Your task to perform on an android device: delete location history Image 0: 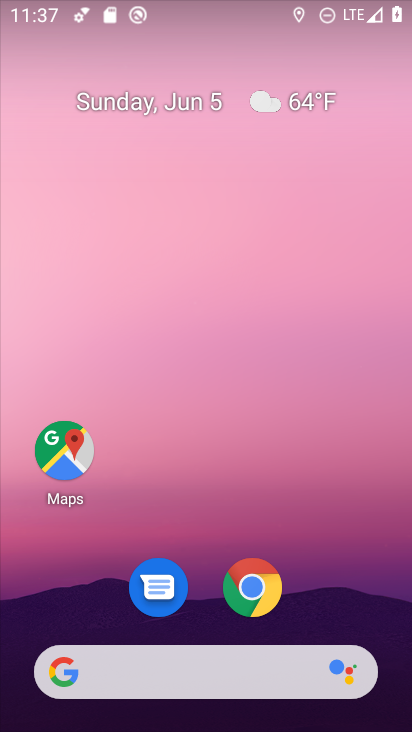
Step 0: click (59, 426)
Your task to perform on an android device: delete location history Image 1: 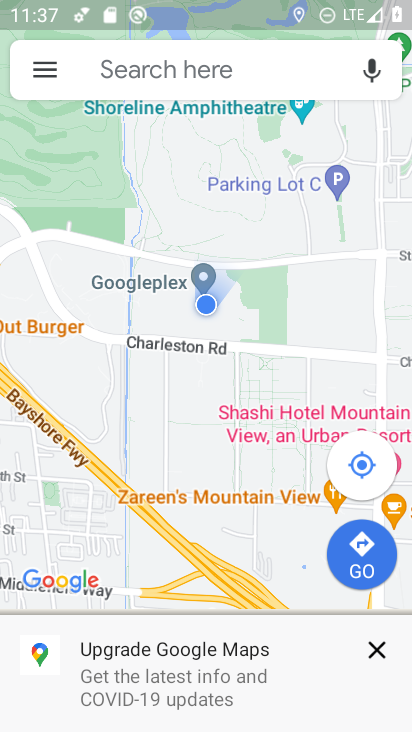
Step 1: click (25, 73)
Your task to perform on an android device: delete location history Image 2: 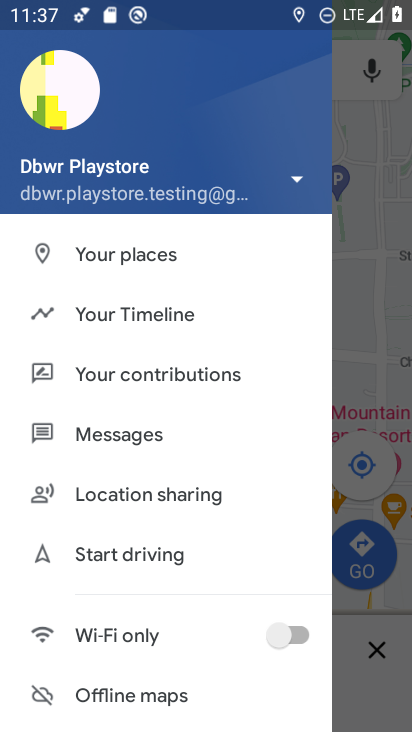
Step 2: click (108, 328)
Your task to perform on an android device: delete location history Image 3: 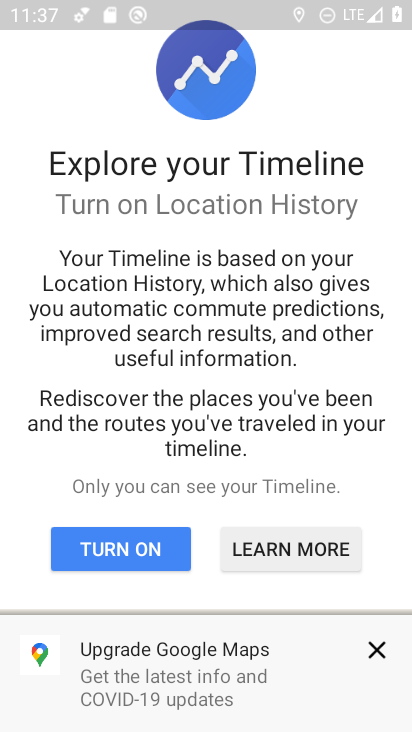
Step 3: click (115, 545)
Your task to perform on an android device: delete location history Image 4: 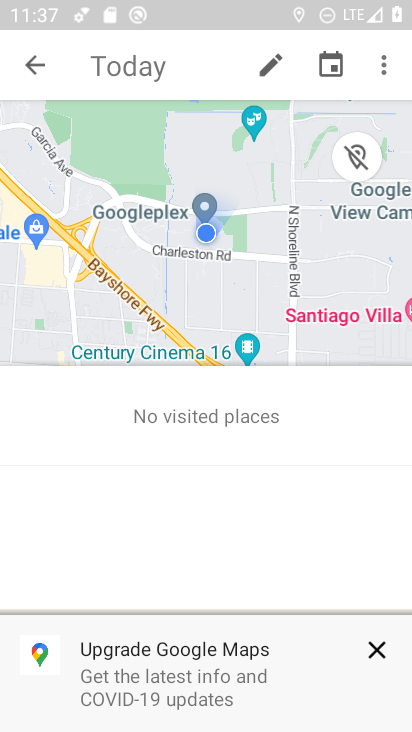
Step 4: click (382, 70)
Your task to perform on an android device: delete location history Image 5: 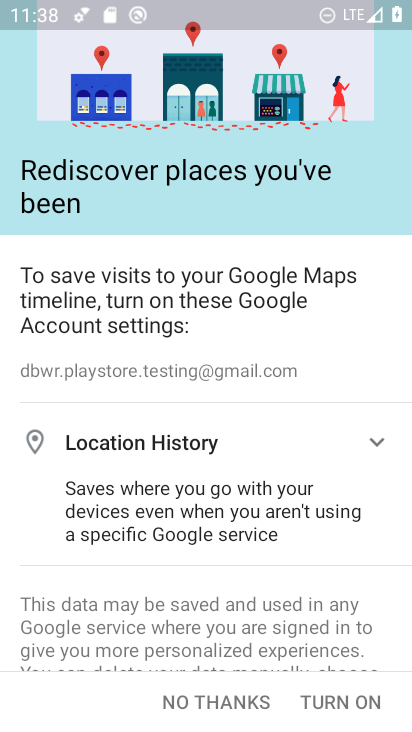
Step 5: click (348, 706)
Your task to perform on an android device: delete location history Image 6: 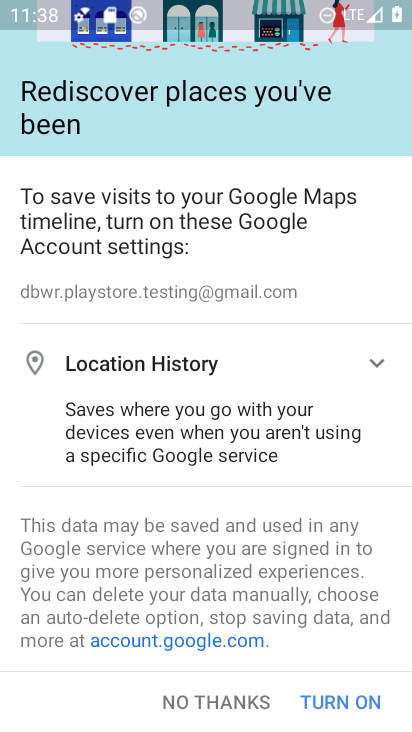
Step 6: click (348, 706)
Your task to perform on an android device: delete location history Image 7: 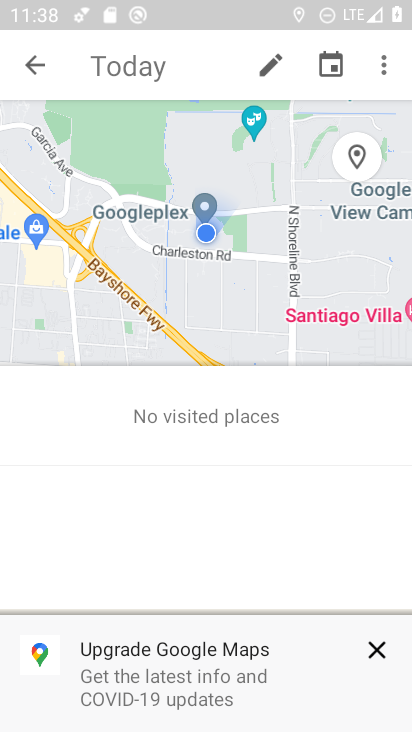
Step 7: click (384, 73)
Your task to perform on an android device: delete location history Image 8: 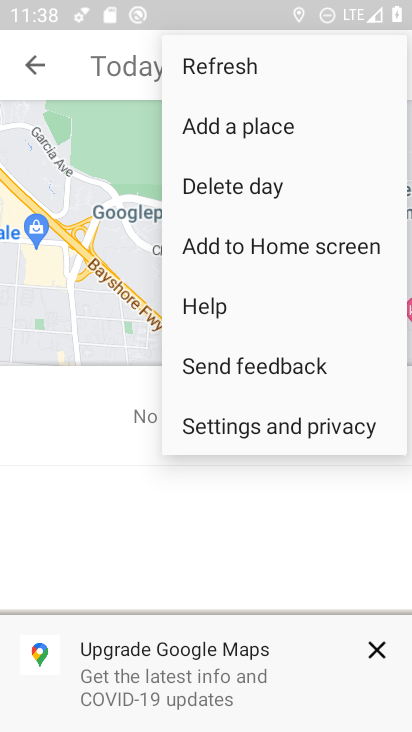
Step 8: click (242, 427)
Your task to perform on an android device: delete location history Image 9: 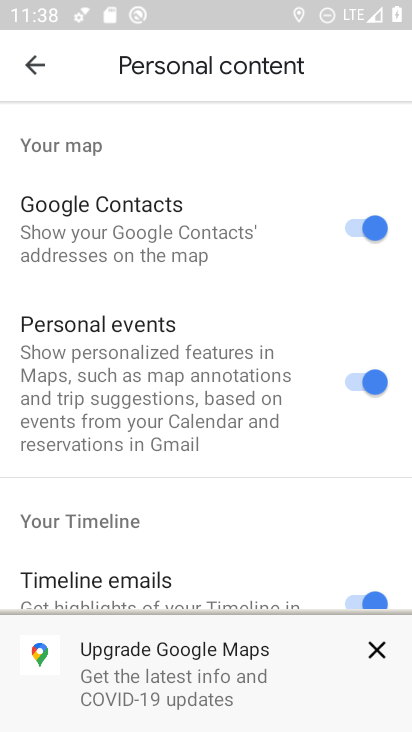
Step 9: drag from (166, 559) to (215, 102)
Your task to perform on an android device: delete location history Image 10: 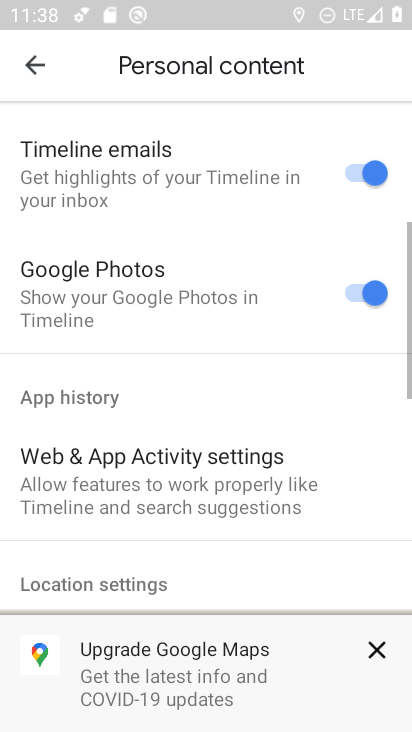
Step 10: drag from (136, 504) to (190, 65)
Your task to perform on an android device: delete location history Image 11: 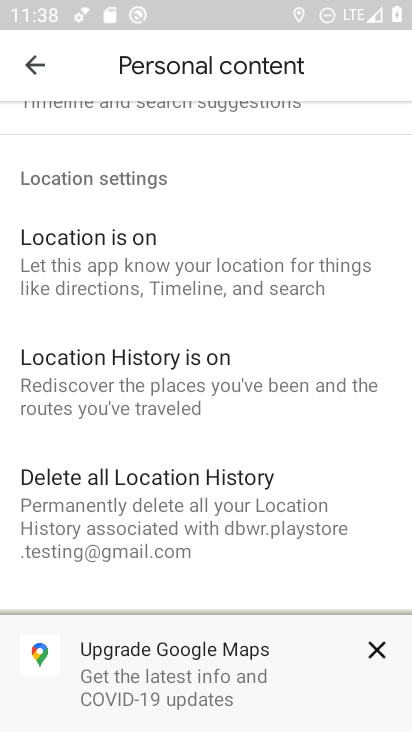
Step 11: click (193, 527)
Your task to perform on an android device: delete location history Image 12: 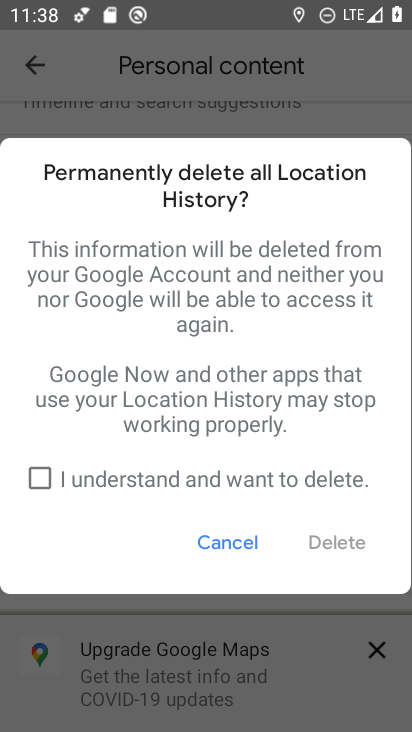
Step 12: click (36, 480)
Your task to perform on an android device: delete location history Image 13: 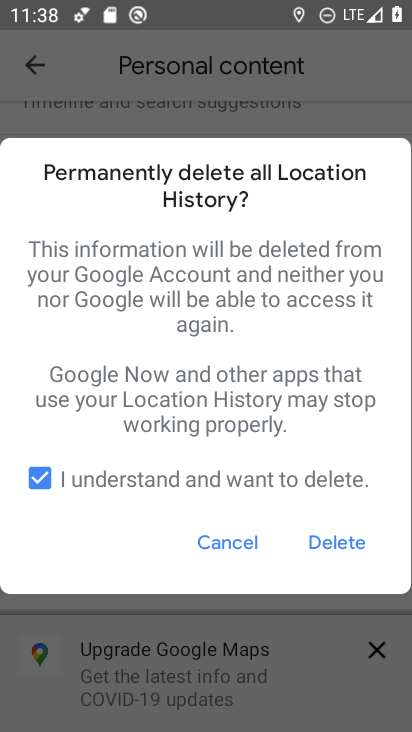
Step 13: click (358, 552)
Your task to perform on an android device: delete location history Image 14: 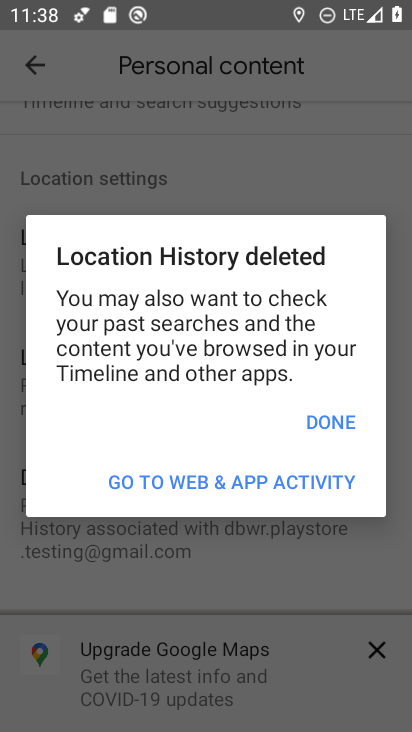
Step 14: click (321, 425)
Your task to perform on an android device: delete location history Image 15: 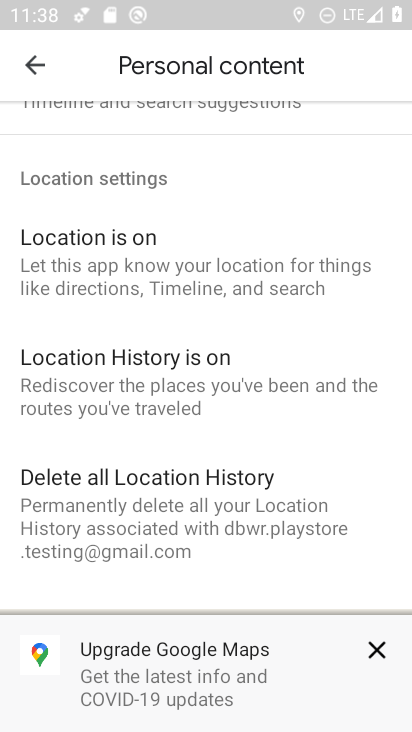
Step 15: task complete